Your task to perform on an android device: Go to Google Image 0: 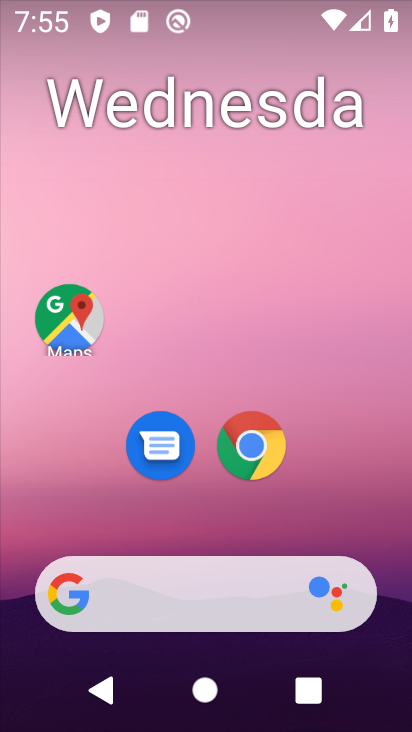
Step 0: click (218, 569)
Your task to perform on an android device: Go to Google Image 1: 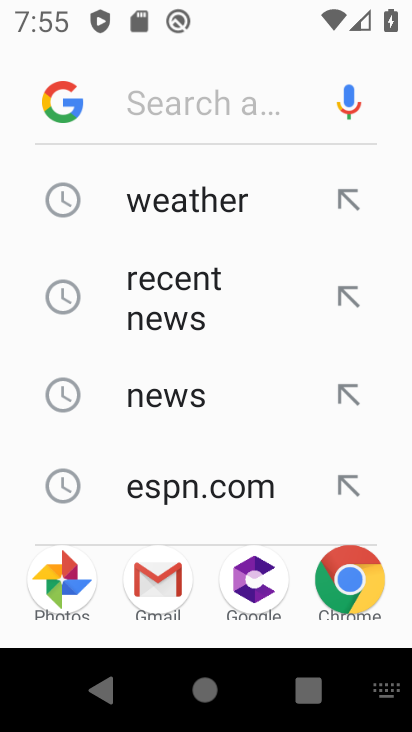
Step 1: task complete